Your task to perform on an android device: open app "Facebook Lite" (install if not already installed) Image 0: 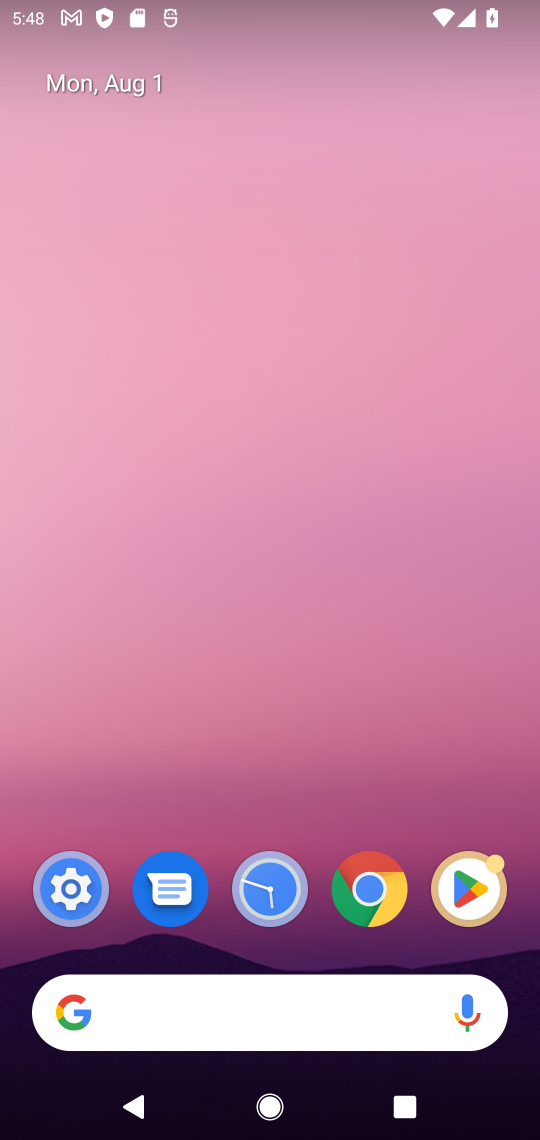
Step 0: drag from (249, 936) to (292, 261)
Your task to perform on an android device: open app "Facebook Lite" (install if not already installed) Image 1: 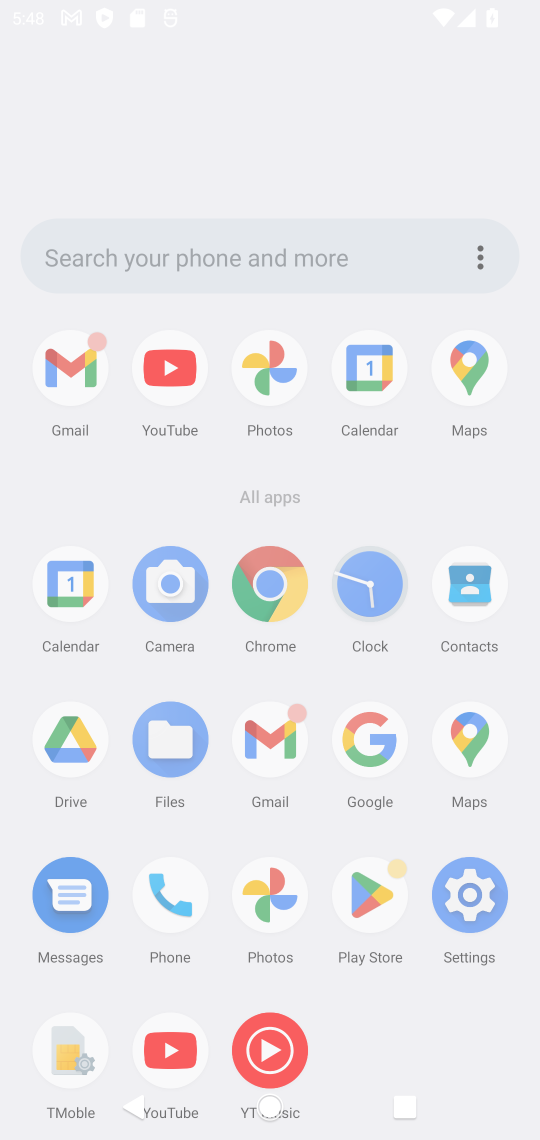
Step 1: drag from (334, 1029) to (349, 337)
Your task to perform on an android device: open app "Facebook Lite" (install if not already installed) Image 2: 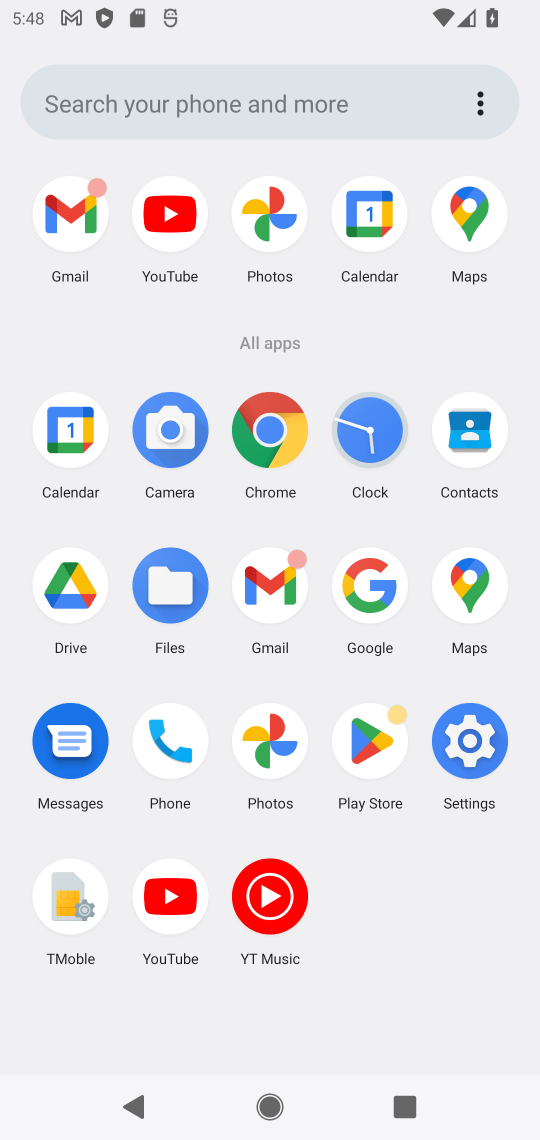
Step 2: click (377, 742)
Your task to perform on an android device: open app "Facebook Lite" (install if not already installed) Image 3: 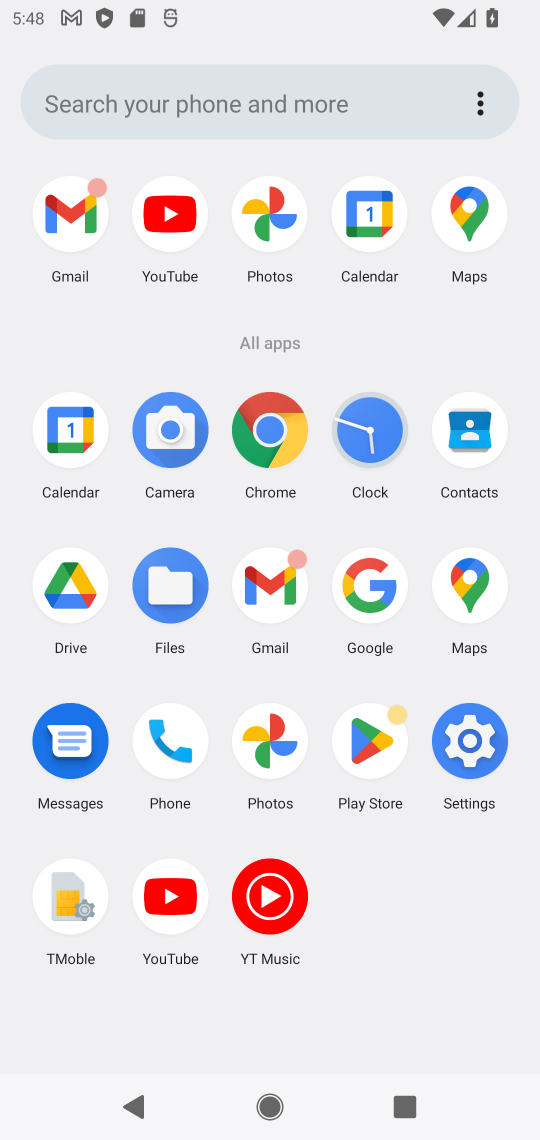
Step 3: click (377, 742)
Your task to perform on an android device: open app "Facebook Lite" (install if not already installed) Image 4: 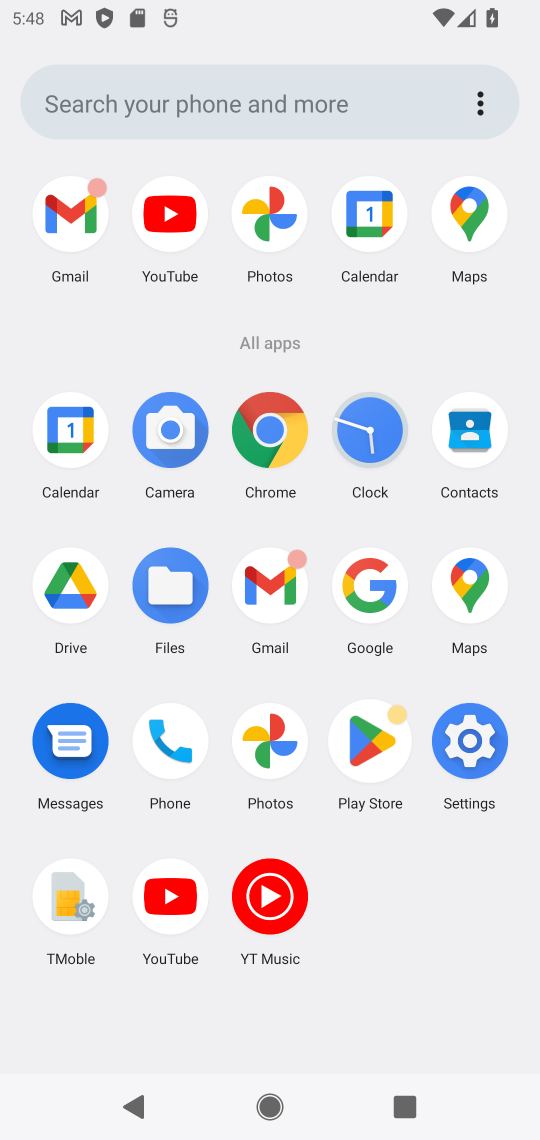
Step 4: click (370, 749)
Your task to perform on an android device: open app "Facebook Lite" (install if not already installed) Image 5: 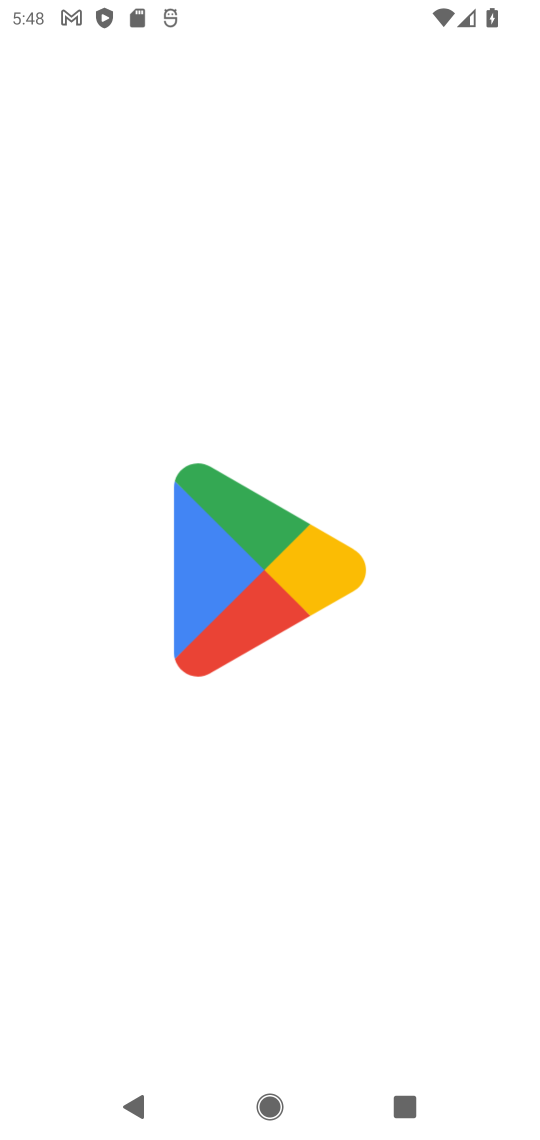
Step 5: click (369, 752)
Your task to perform on an android device: open app "Facebook Lite" (install if not already installed) Image 6: 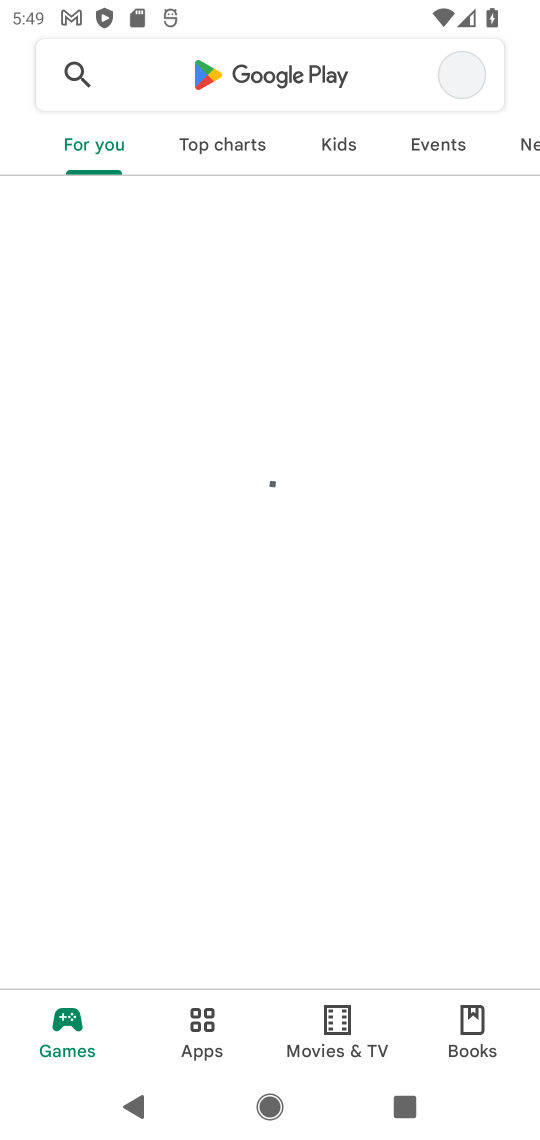
Step 6: click (189, 80)
Your task to perform on an android device: open app "Facebook Lite" (install if not already installed) Image 7: 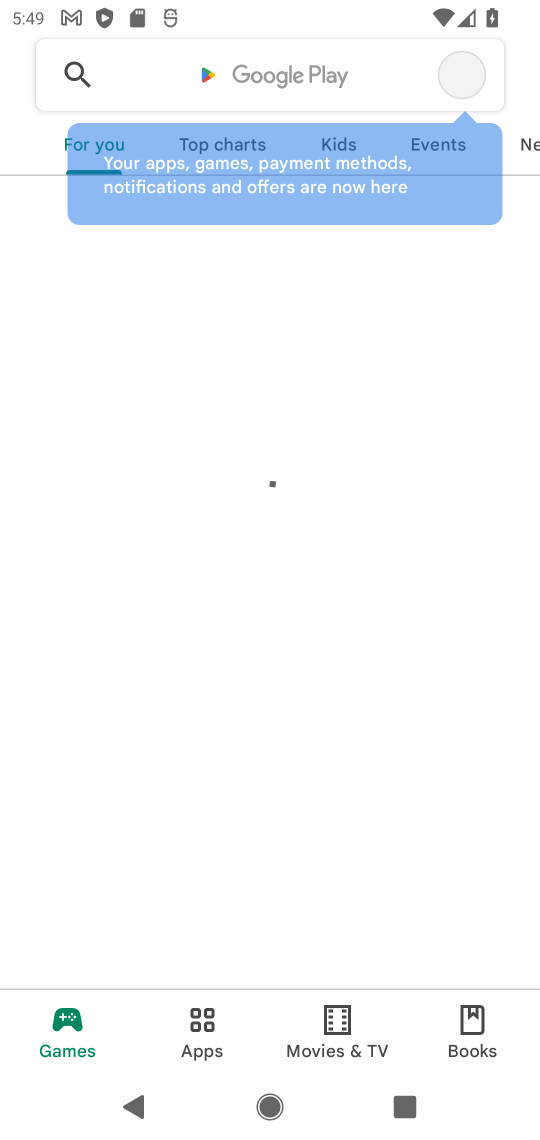
Step 7: click (191, 80)
Your task to perform on an android device: open app "Facebook Lite" (install if not already installed) Image 8: 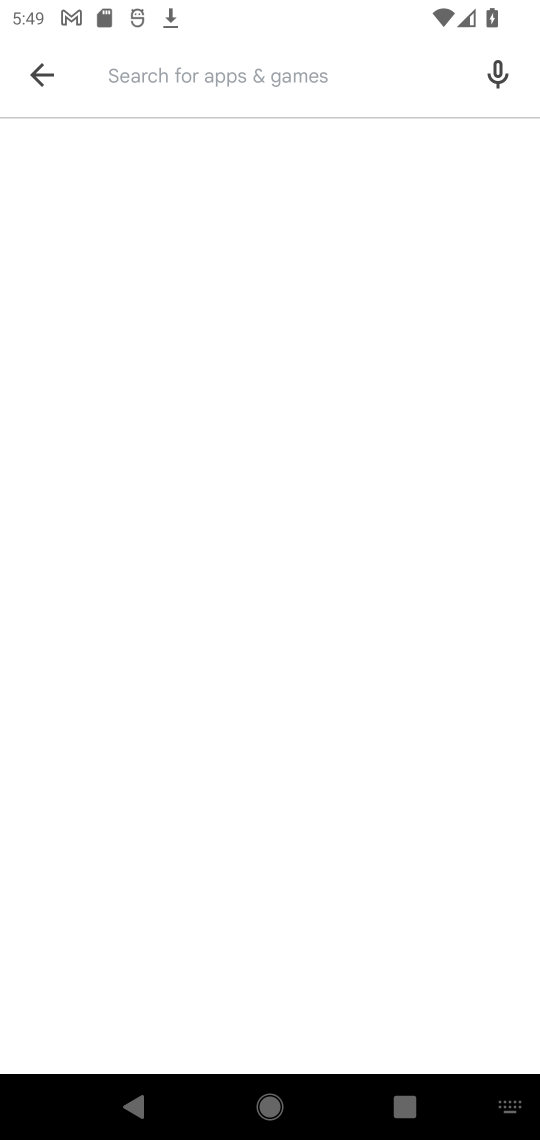
Step 8: type "facebook lite"
Your task to perform on an android device: open app "Facebook Lite" (install if not already installed) Image 9: 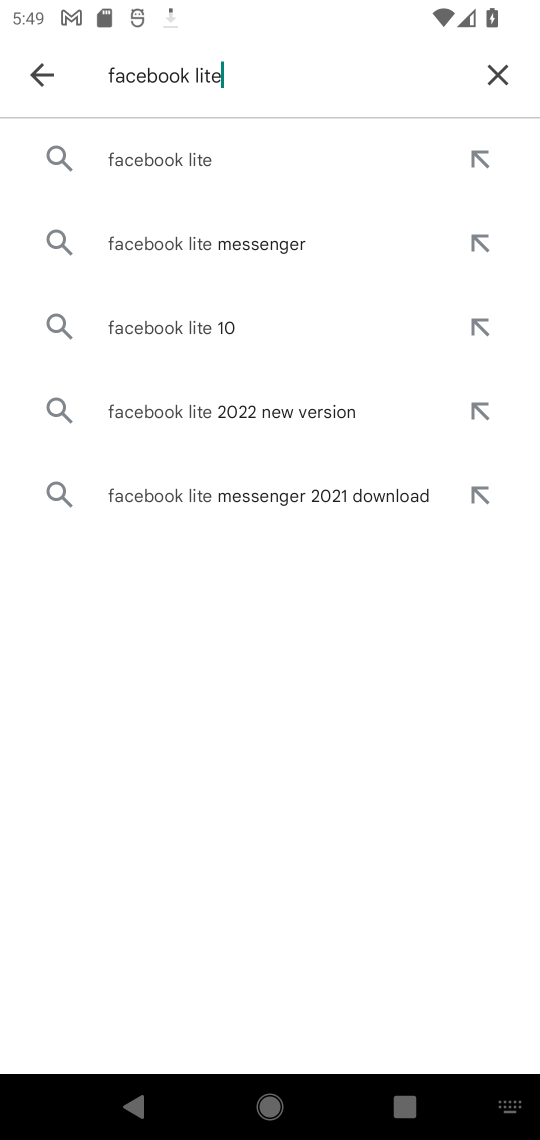
Step 9: click (163, 147)
Your task to perform on an android device: open app "Facebook Lite" (install if not already installed) Image 10: 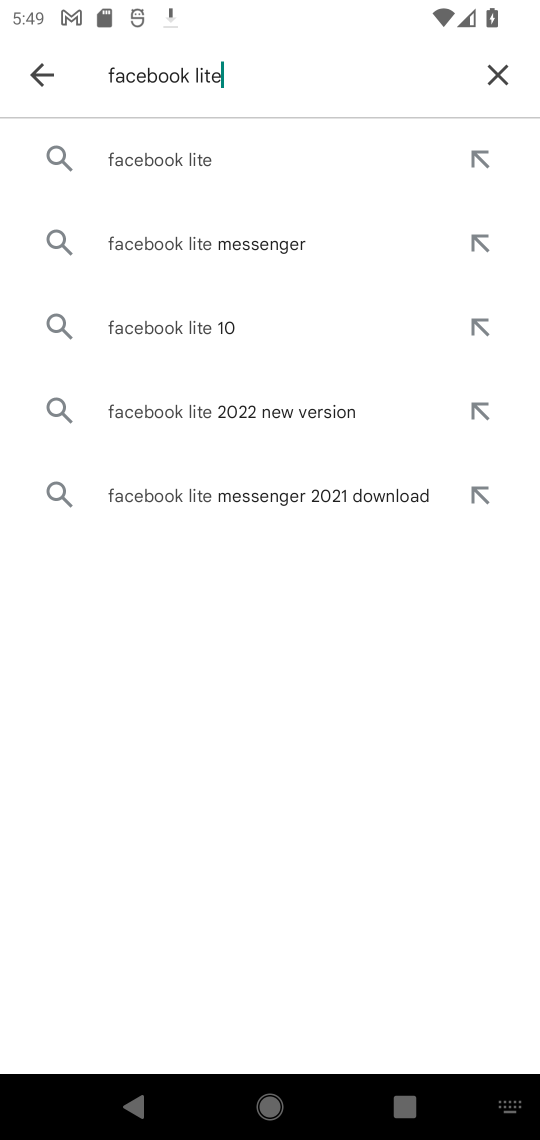
Step 10: click (163, 147)
Your task to perform on an android device: open app "Facebook Lite" (install if not already installed) Image 11: 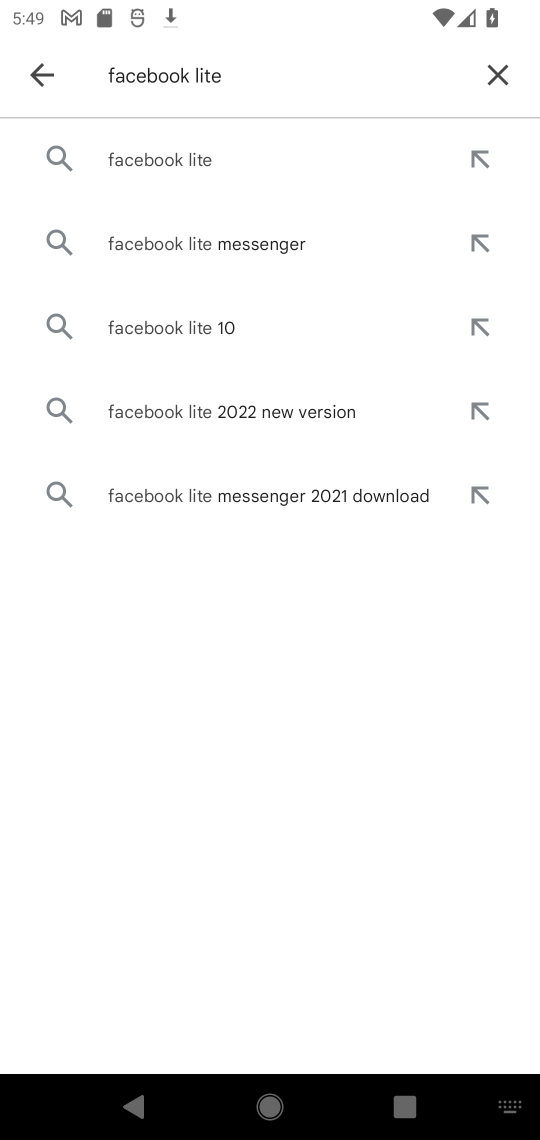
Step 11: click (163, 147)
Your task to perform on an android device: open app "Facebook Lite" (install if not already installed) Image 12: 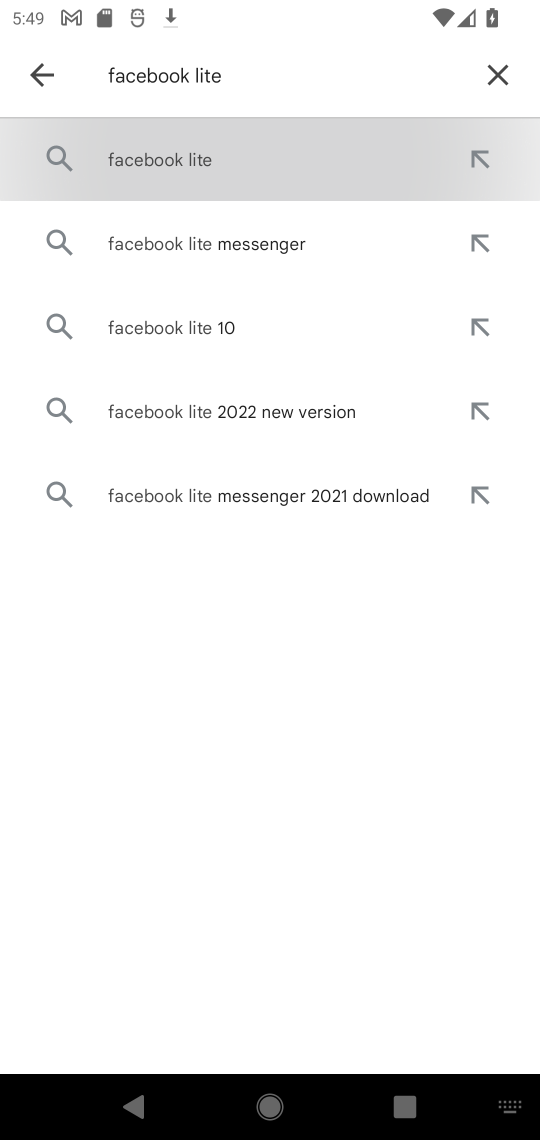
Step 12: click (163, 147)
Your task to perform on an android device: open app "Facebook Lite" (install if not already installed) Image 13: 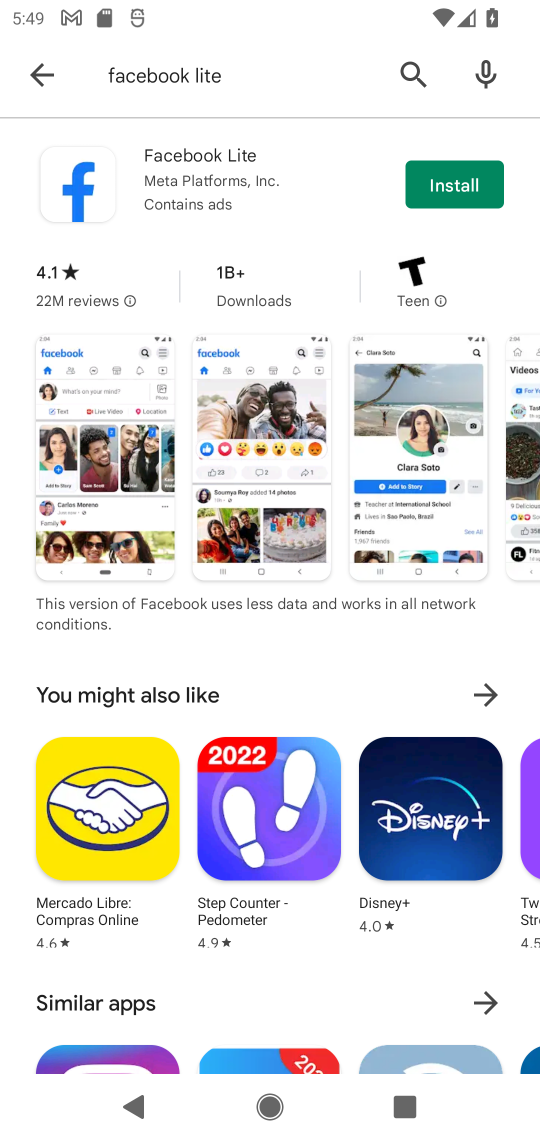
Step 13: click (423, 180)
Your task to perform on an android device: open app "Facebook Lite" (install if not already installed) Image 14: 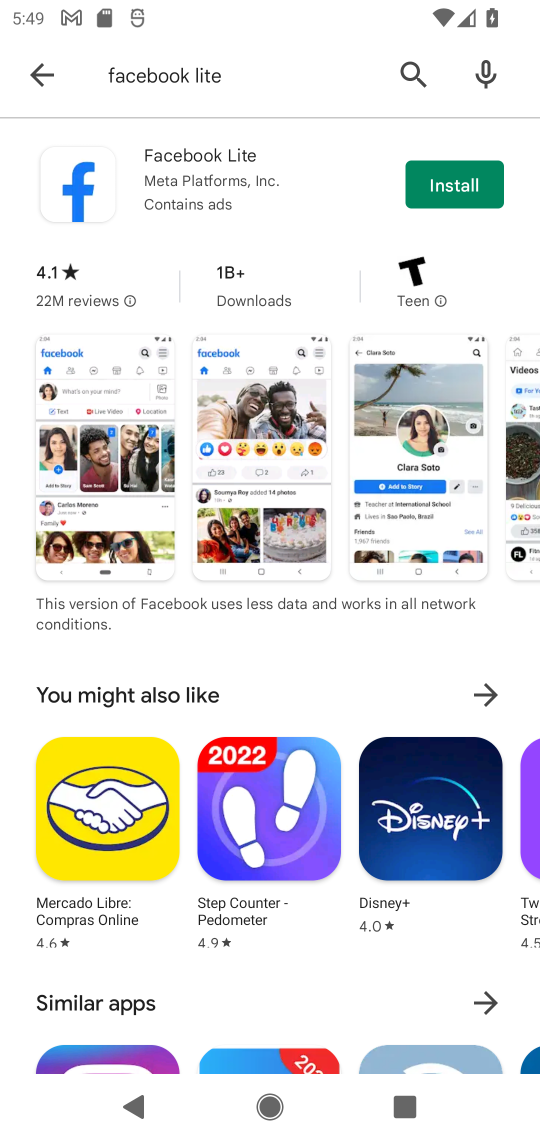
Step 14: click (423, 180)
Your task to perform on an android device: open app "Facebook Lite" (install if not already installed) Image 15: 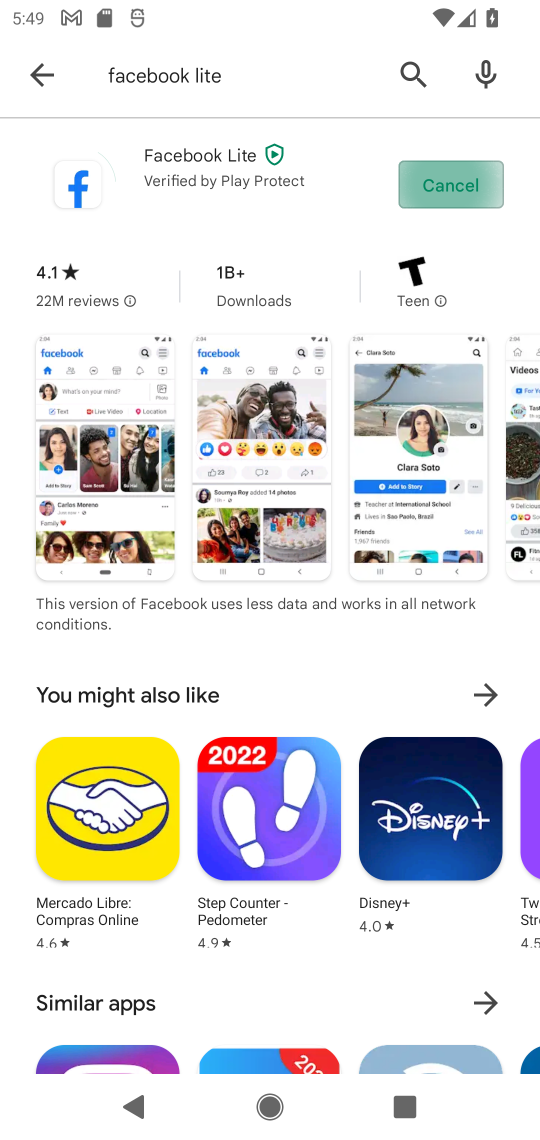
Step 15: click (425, 177)
Your task to perform on an android device: open app "Facebook Lite" (install if not already installed) Image 16: 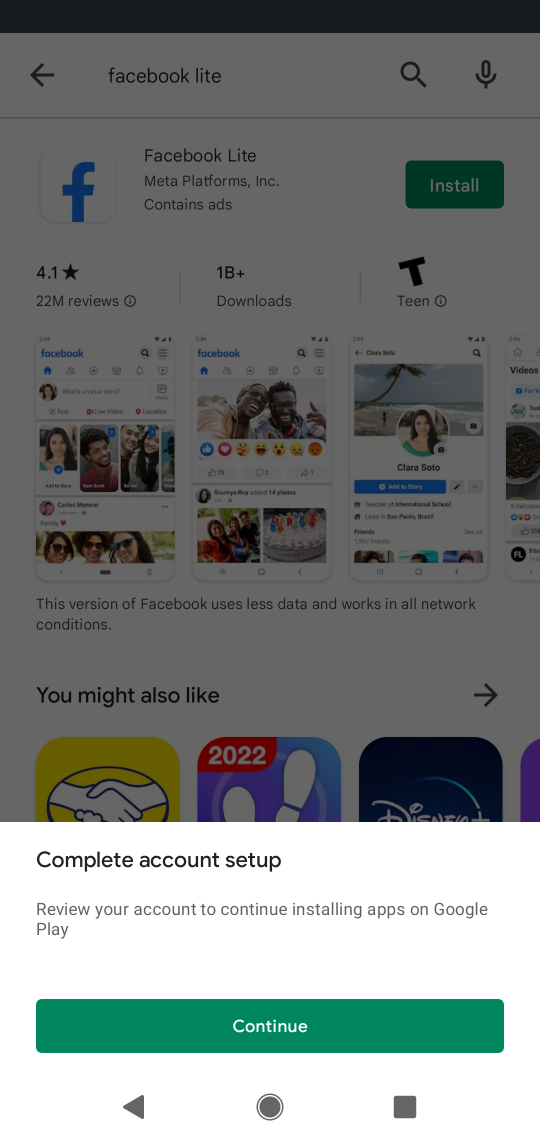
Step 16: click (310, 1044)
Your task to perform on an android device: open app "Facebook Lite" (install if not already installed) Image 17: 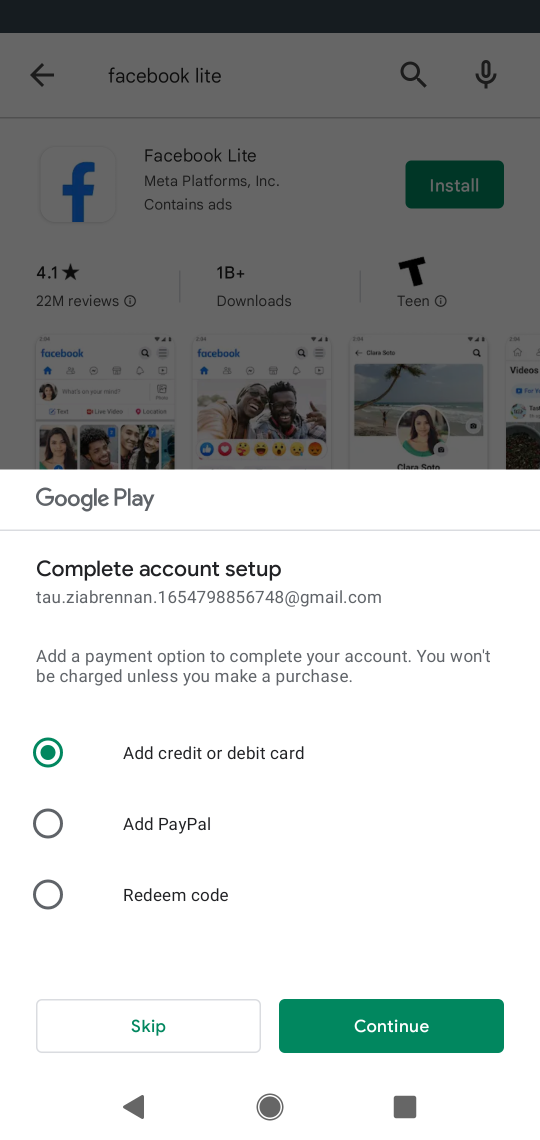
Step 17: click (161, 1023)
Your task to perform on an android device: open app "Facebook Lite" (install if not already installed) Image 18: 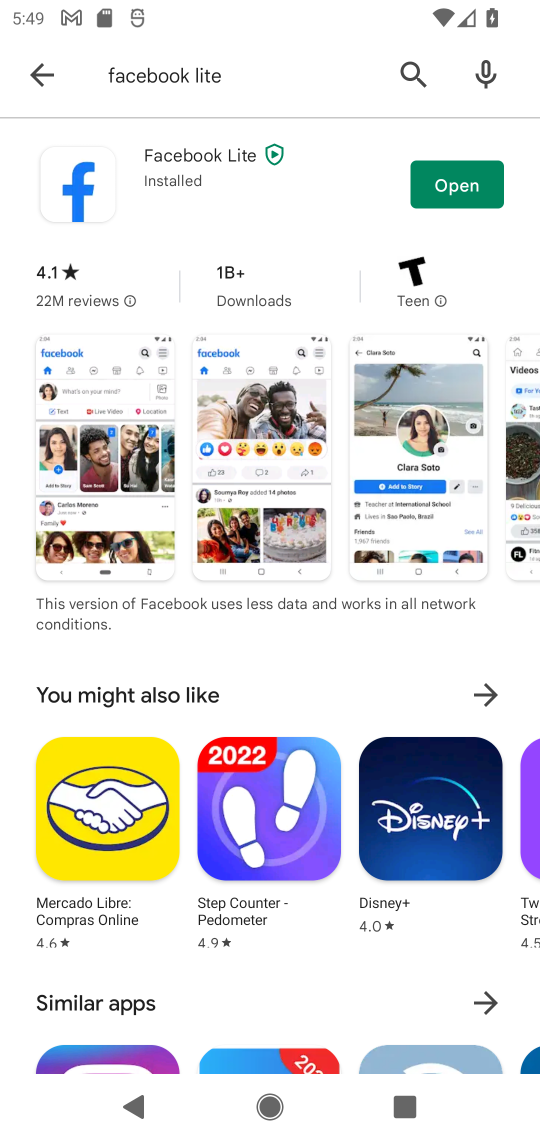
Step 18: click (425, 174)
Your task to perform on an android device: open app "Facebook Lite" (install if not already installed) Image 19: 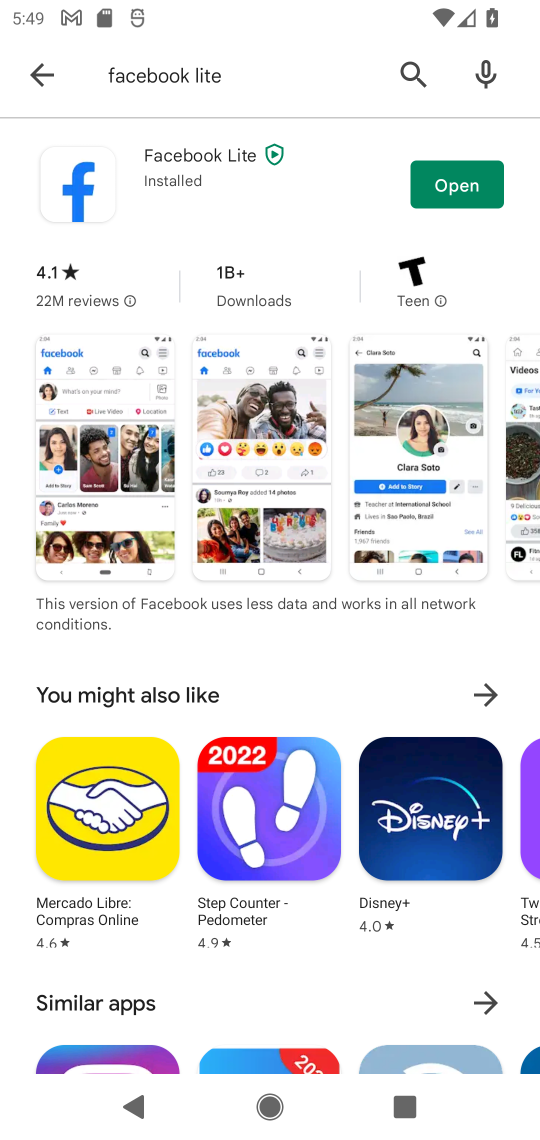
Step 19: click (428, 174)
Your task to perform on an android device: open app "Facebook Lite" (install if not already installed) Image 20: 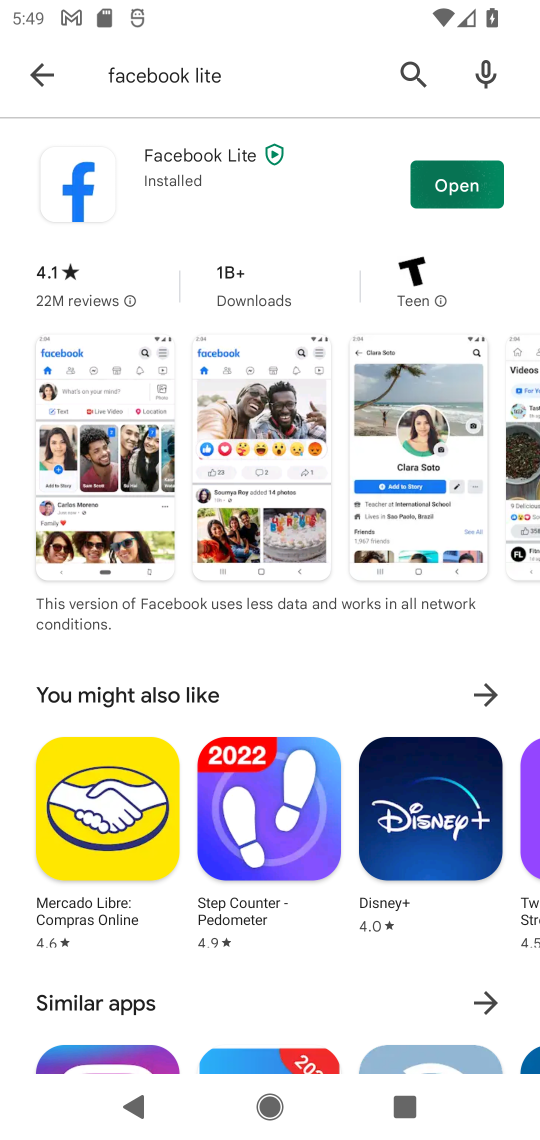
Step 20: click (428, 174)
Your task to perform on an android device: open app "Facebook Lite" (install if not already installed) Image 21: 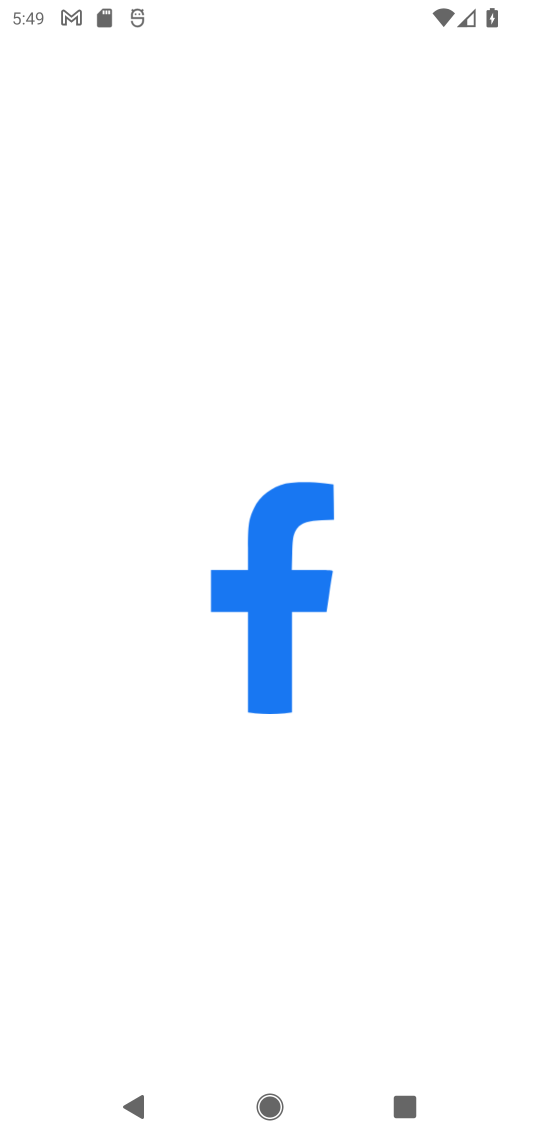
Step 21: task complete